Your task to perform on an android device: find snoozed emails in the gmail app Image 0: 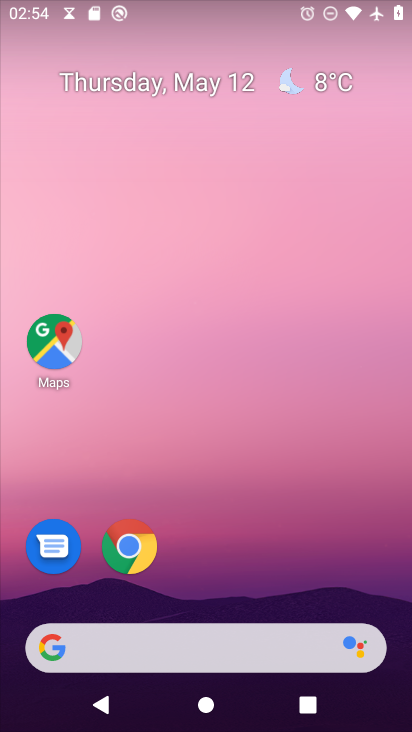
Step 0: drag from (181, 651) to (327, 114)
Your task to perform on an android device: find snoozed emails in the gmail app Image 1: 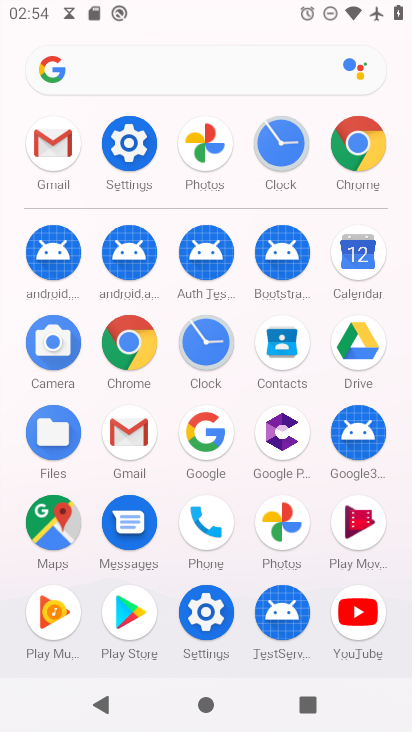
Step 1: click (56, 152)
Your task to perform on an android device: find snoozed emails in the gmail app Image 2: 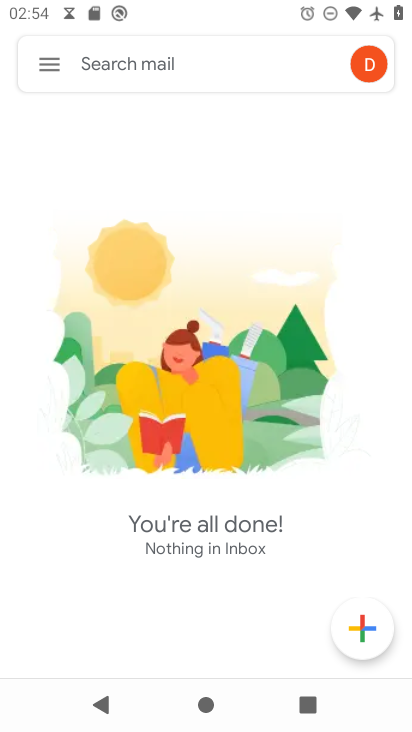
Step 2: click (49, 67)
Your task to perform on an android device: find snoozed emails in the gmail app Image 3: 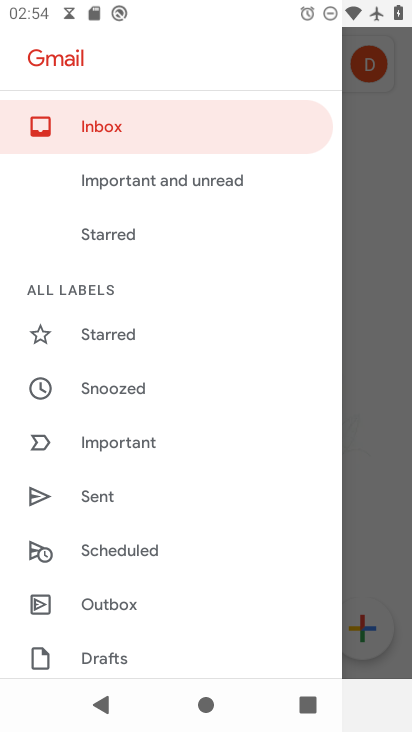
Step 3: click (96, 382)
Your task to perform on an android device: find snoozed emails in the gmail app Image 4: 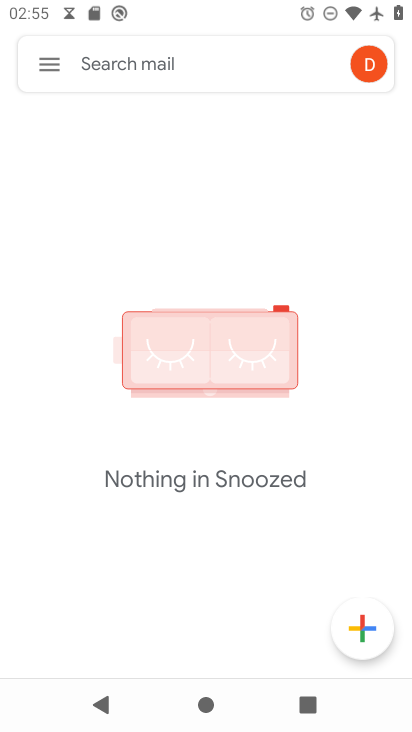
Step 4: task complete